Your task to perform on an android device: turn off notifications settings in the gmail app Image 0: 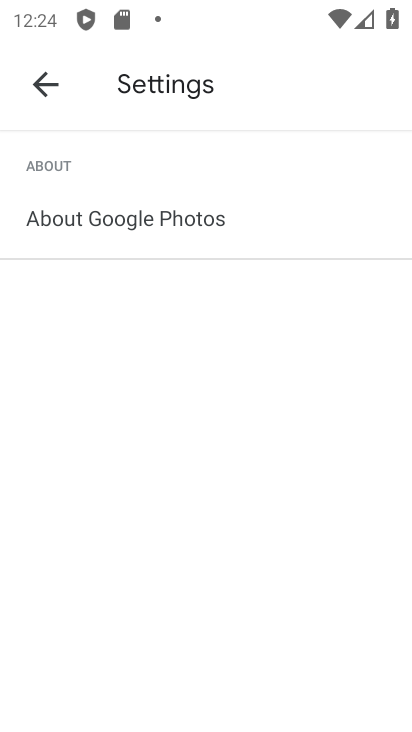
Step 0: press home button
Your task to perform on an android device: turn off notifications settings in the gmail app Image 1: 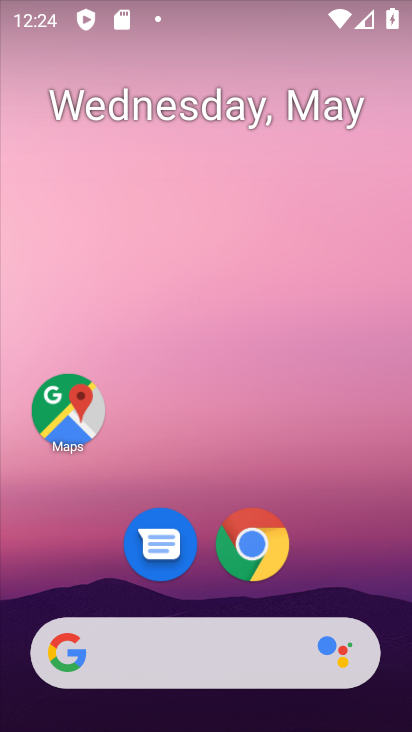
Step 1: drag from (309, 570) to (305, 113)
Your task to perform on an android device: turn off notifications settings in the gmail app Image 2: 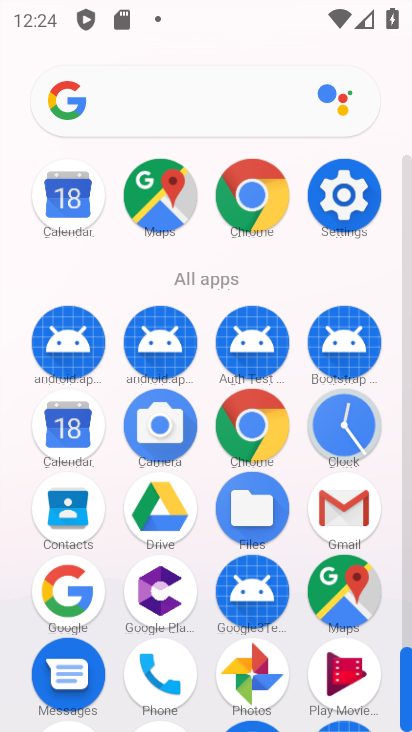
Step 2: click (343, 518)
Your task to perform on an android device: turn off notifications settings in the gmail app Image 3: 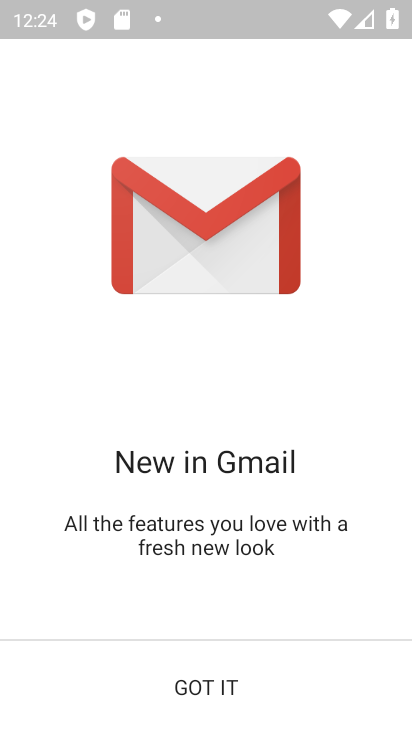
Step 3: click (217, 668)
Your task to perform on an android device: turn off notifications settings in the gmail app Image 4: 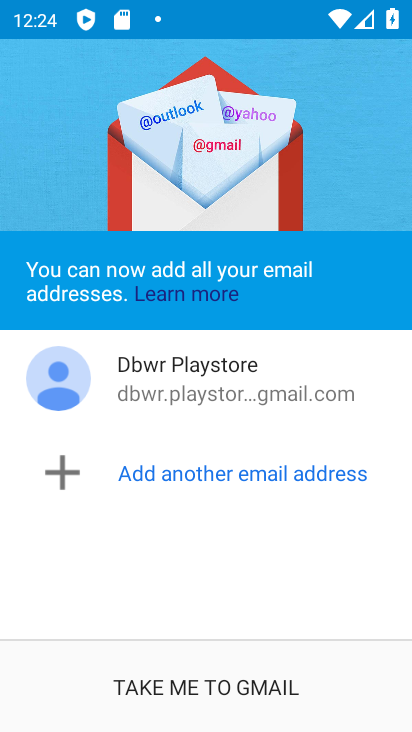
Step 4: click (217, 668)
Your task to perform on an android device: turn off notifications settings in the gmail app Image 5: 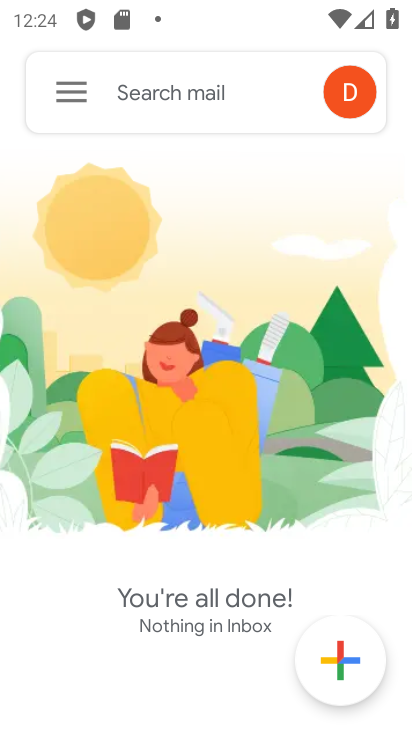
Step 5: click (55, 79)
Your task to perform on an android device: turn off notifications settings in the gmail app Image 6: 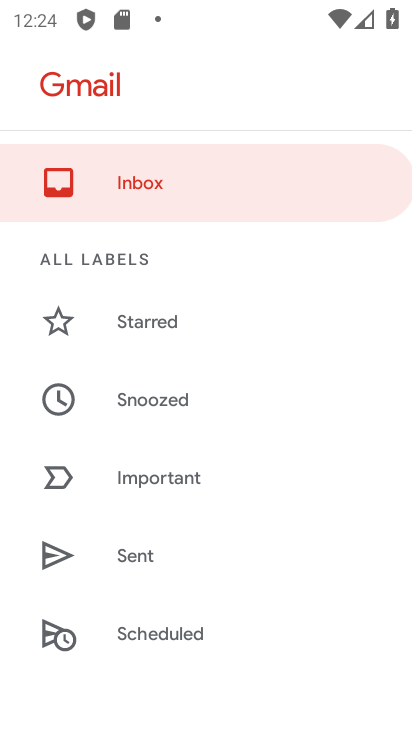
Step 6: drag from (164, 630) to (178, 155)
Your task to perform on an android device: turn off notifications settings in the gmail app Image 7: 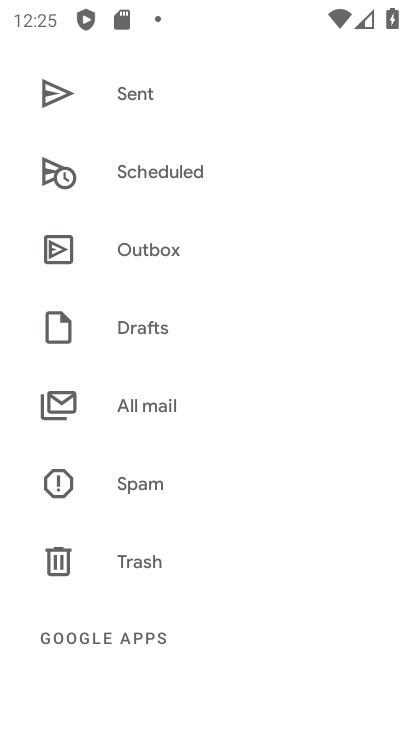
Step 7: drag from (196, 672) to (280, 266)
Your task to perform on an android device: turn off notifications settings in the gmail app Image 8: 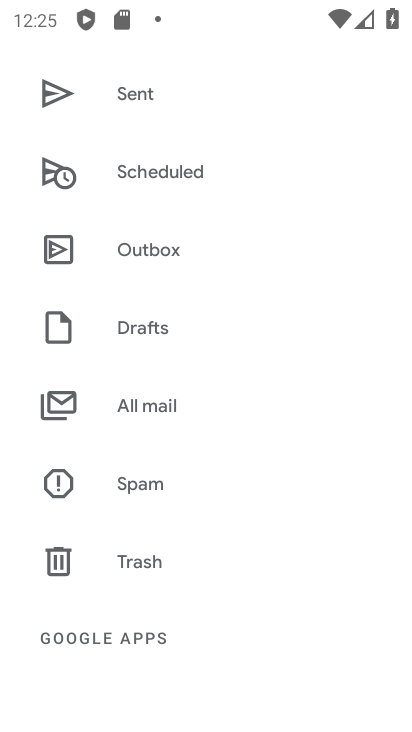
Step 8: drag from (156, 699) to (213, 218)
Your task to perform on an android device: turn off notifications settings in the gmail app Image 9: 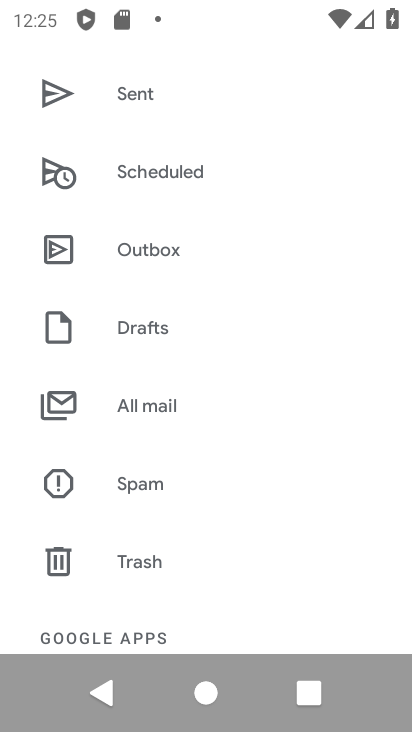
Step 9: drag from (212, 582) to (241, 181)
Your task to perform on an android device: turn off notifications settings in the gmail app Image 10: 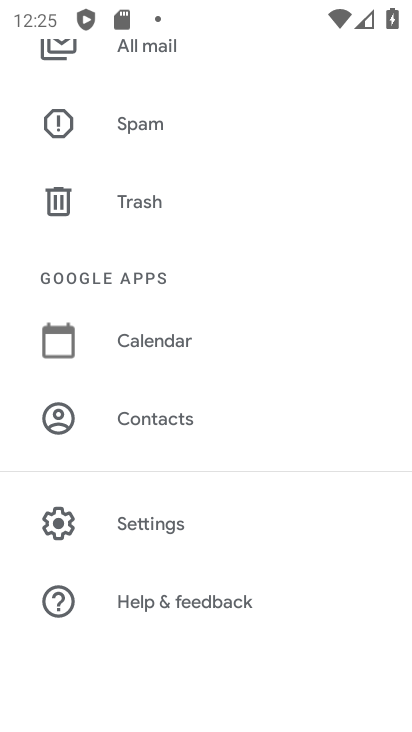
Step 10: click (116, 531)
Your task to perform on an android device: turn off notifications settings in the gmail app Image 11: 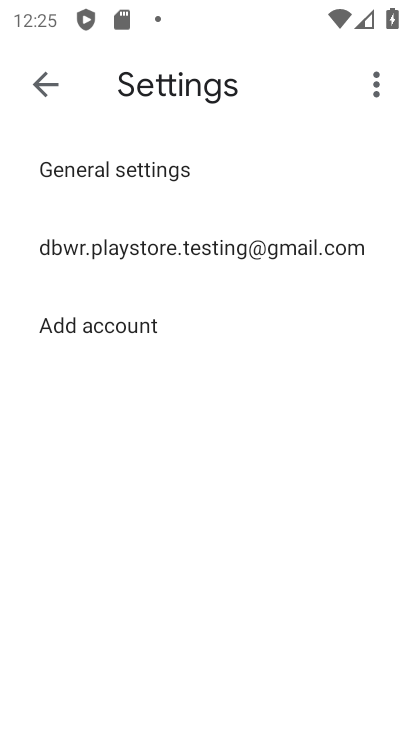
Step 11: click (155, 253)
Your task to perform on an android device: turn off notifications settings in the gmail app Image 12: 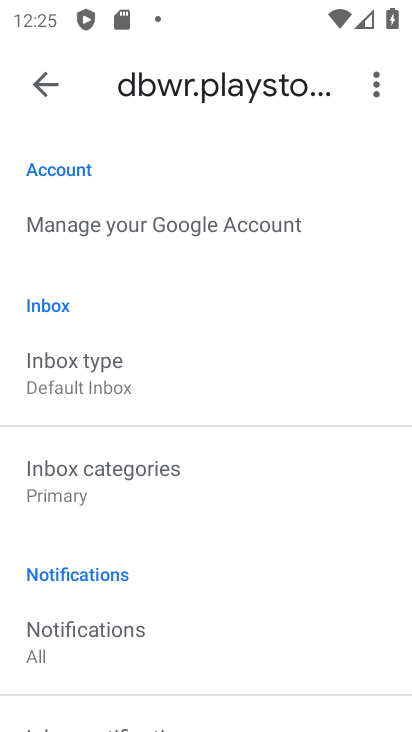
Step 12: drag from (146, 599) to (208, 134)
Your task to perform on an android device: turn off notifications settings in the gmail app Image 13: 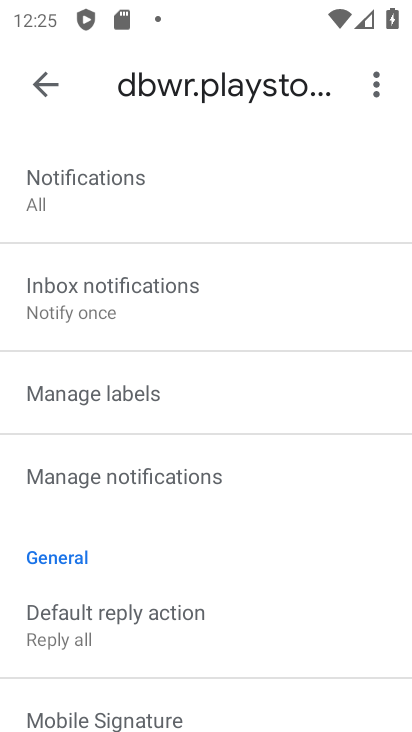
Step 13: click (127, 455)
Your task to perform on an android device: turn off notifications settings in the gmail app Image 14: 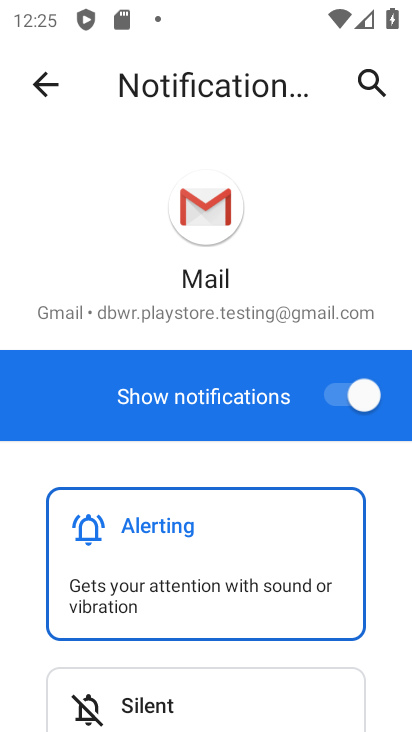
Step 14: click (344, 403)
Your task to perform on an android device: turn off notifications settings in the gmail app Image 15: 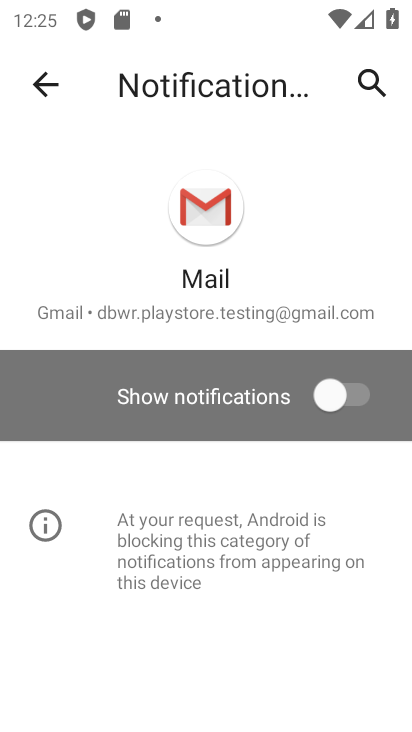
Step 15: task complete